Your task to perform on an android device: turn off smart reply in the gmail app Image 0: 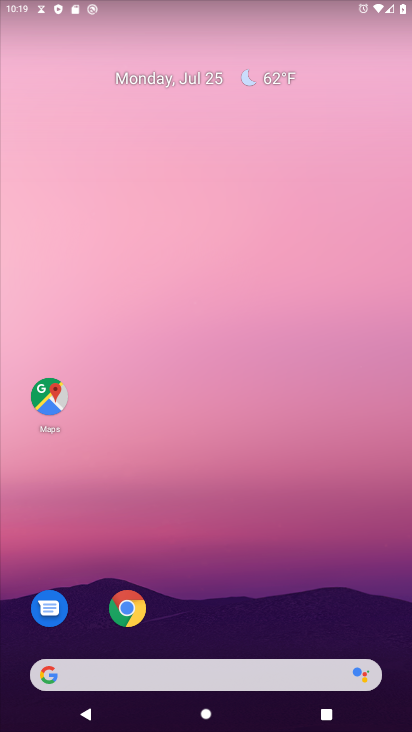
Step 0: drag from (187, 676) to (190, 127)
Your task to perform on an android device: turn off smart reply in the gmail app Image 1: 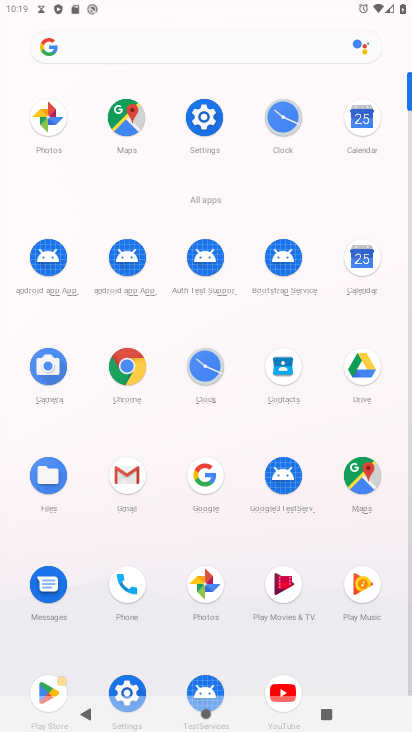
Step 1: click (124, 474)
Your task to perform on an android device: turn off smart reply in the gmail app Image 2: 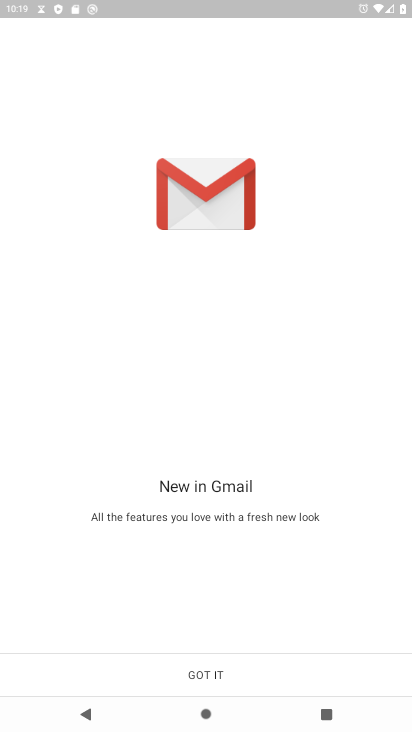
Step 2: click (202, 672)
Your task to perform on an android device: turn off smart reply in the gmail app Image 3: 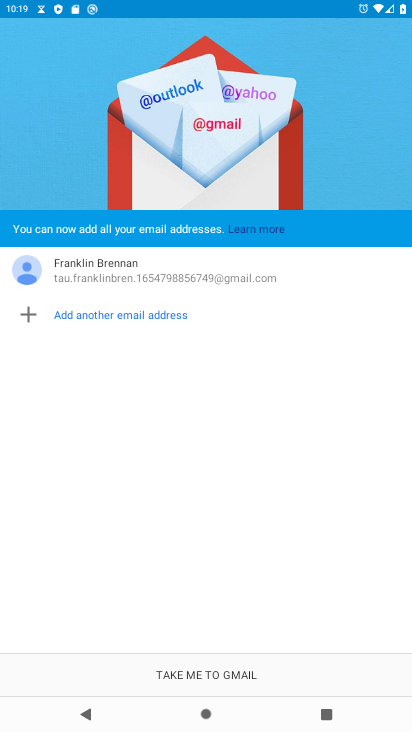
Step 3: click (202, 672)
Your task to perform on an android device: turn off smart reply in the gmail app Image 4: 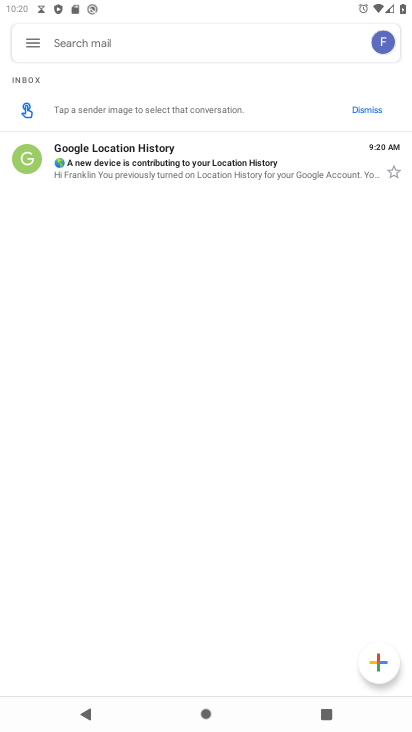
Step 4: click (34, 43)
Your task to perform on an android device: turn off smart reply in the gmail app Image 5: 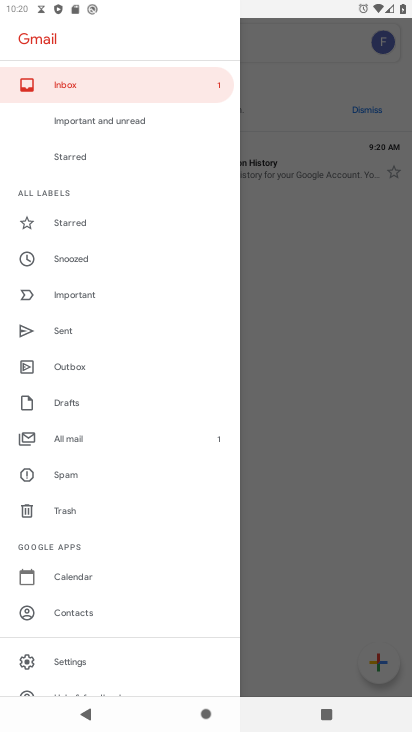
Step 5: drag from (73, 424) to (100, 344)
Your task to perform on an android device: turn off smart reply in the gmail app Image 6: 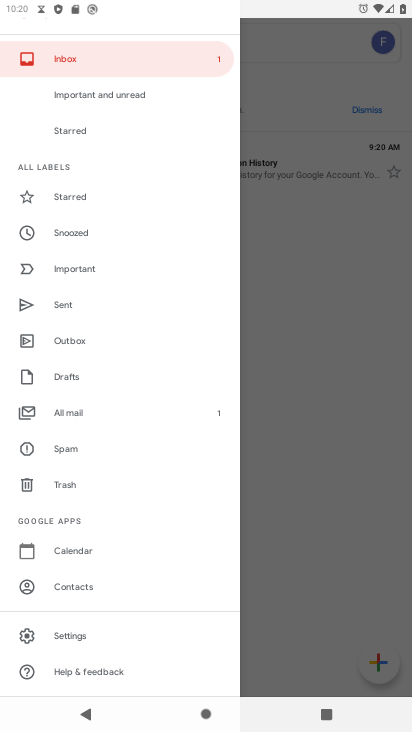
Step 6: drag from (77, 568) to (96, 437)
Your task to perform on an android device: turn off smart reply in the gmail app Image 7: 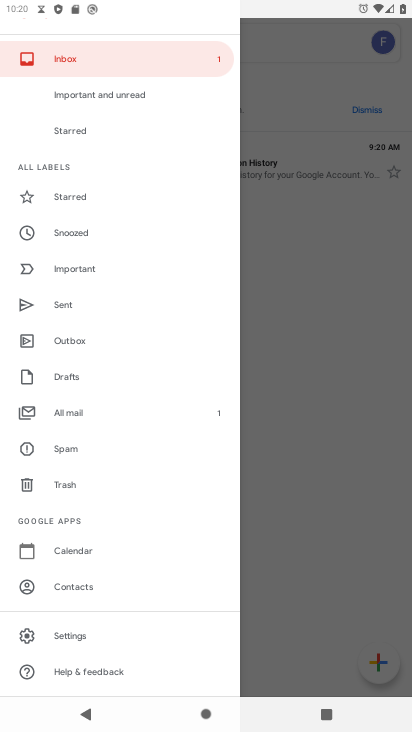
Step 7: click (77, 630)
Your task to perform on an android device: turn off smart reply in the gmail app Image 8: 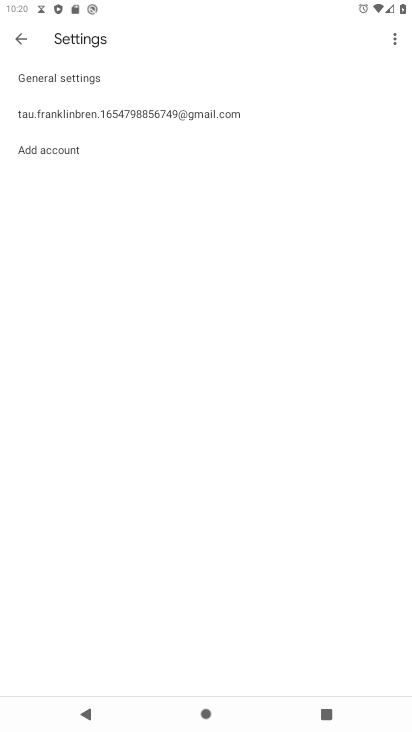
Step 8: click (179, 110)
Your task to perform on an android device: turn off smart reply in the gmail app Image 9: 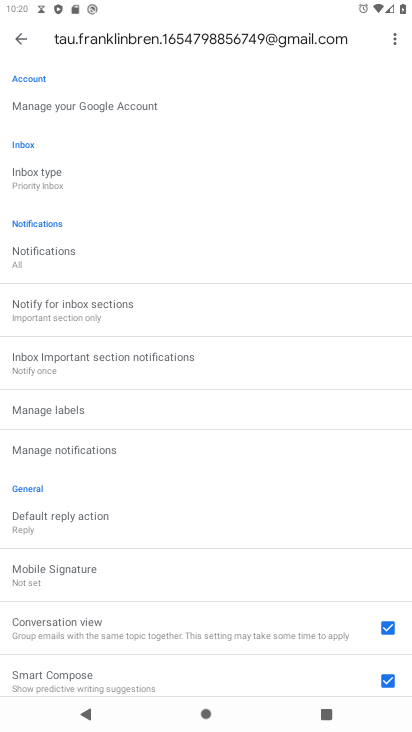
Step 9: drag from (109, 498) to (148, 268)
Your task to perform on an android device: turn off smart reply in the gmail app Image 10: 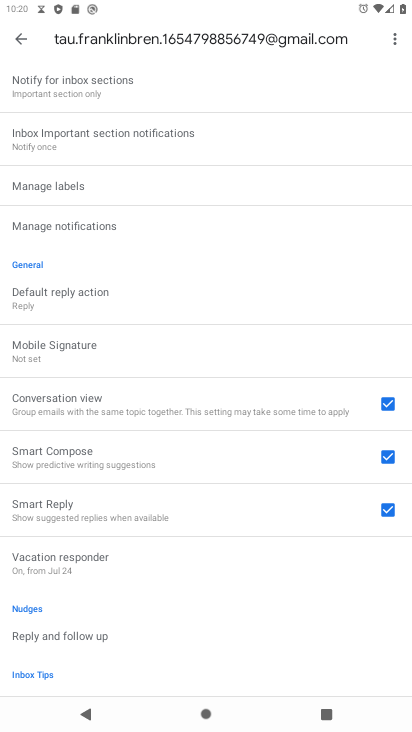
Step 10: click (387, 506)
Your task to perform on an android device: turn off smart reply in the gmail app Image 11: 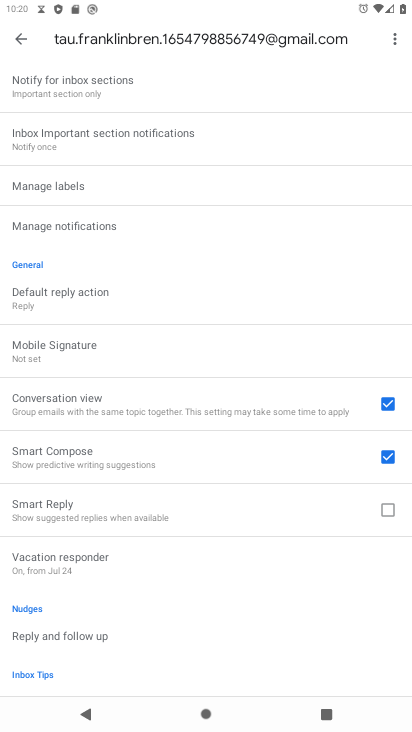
Step 11: task complete